Your task to perform on an android device: add a contact in the contacts app Image 0: 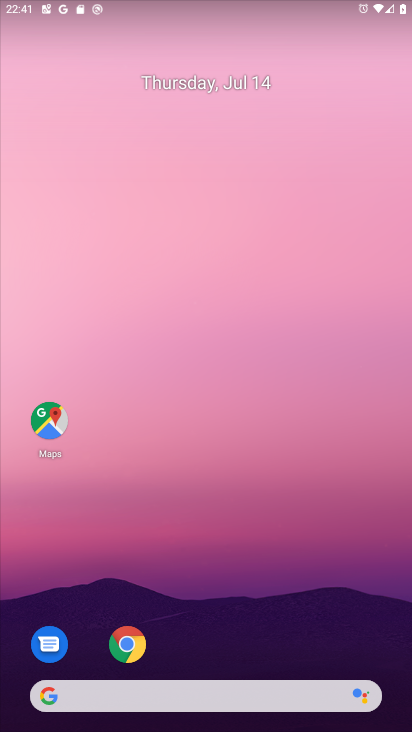
Step 0: drag from (202, 642) to (155, 242)
Your task to perform on an android device: add a contact in the contacts app Image 1: 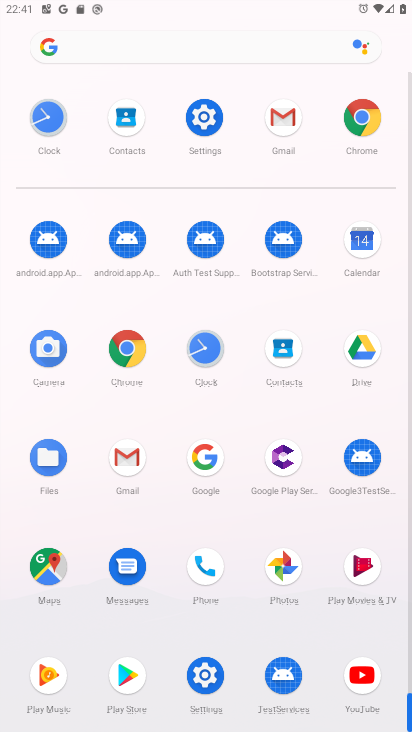
Step 1: click (128, 119)
Your task to perform on an android device: add a contact in the contacts app Image 2: 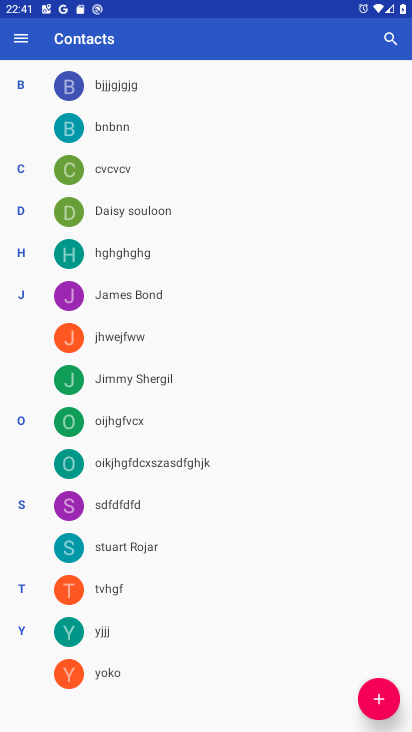
Step 2: click (382, 701)
Your task to perform on an android device: add a contact in the contacts app Image 3: 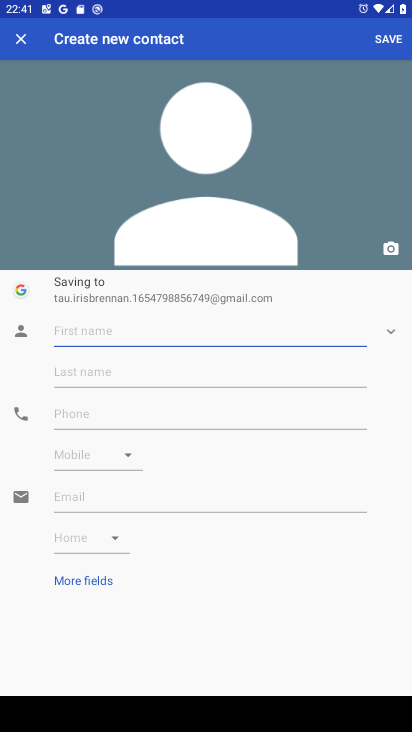
Step 3: type "oiujhgvfc"
Your task to perform on an android device: add a contact in the contacts app Image 4: 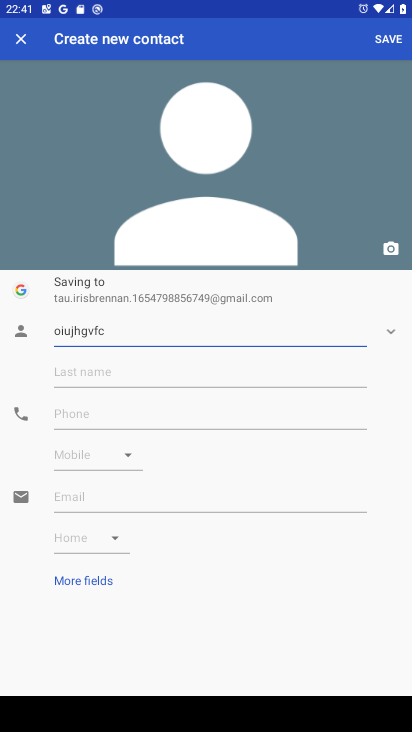
Step 4: click (87, 408)
Your task to perform on an android device: add a contact in the contacts app Image 5: 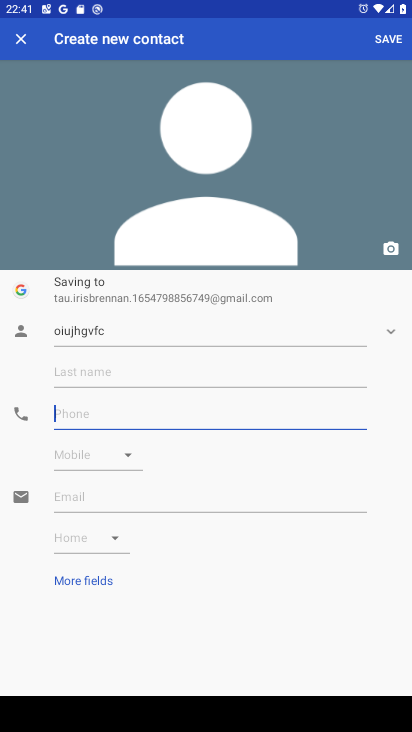
Step 5: type "345678765"
Your task to perform on an android device: add a contact in the contacts app Image 6: 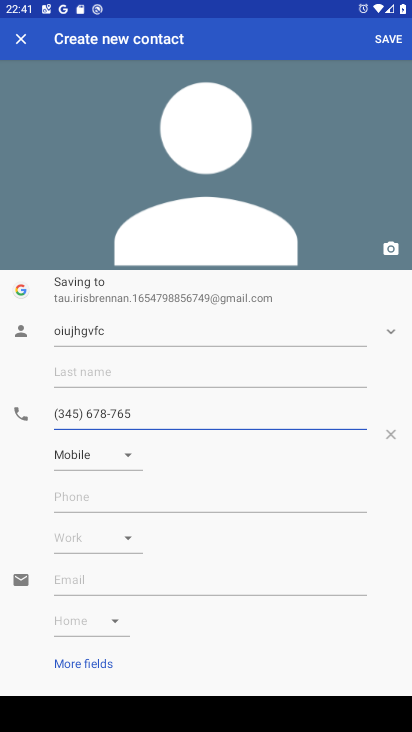
Step 6: click (395, 43)
Your task to perform on an android device: add a contact in the contacts app Image 7: 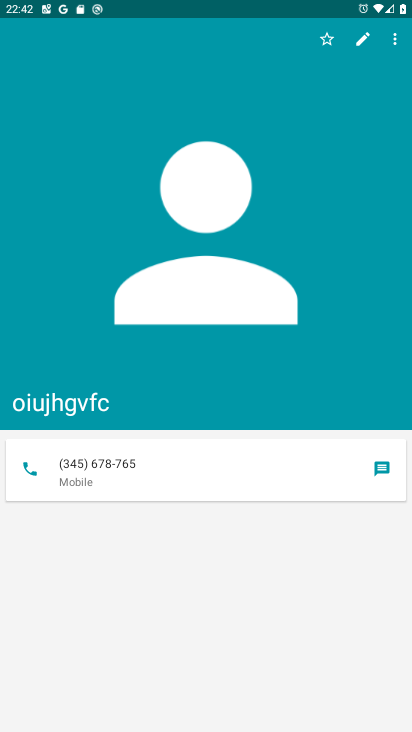
Step 7: task complete